Your task to perform on an android device: turn on bluetooth scan Image 0: 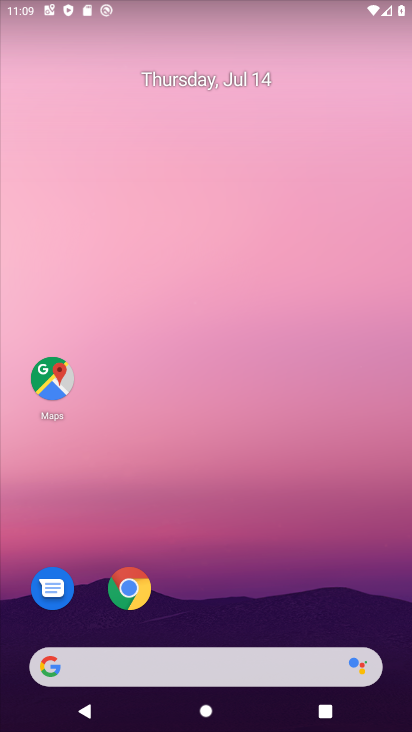
Step 0: drag from (391, 671) to (359, 57)
Your task to perform on an android device: turn on bluetooth scan Image 1: 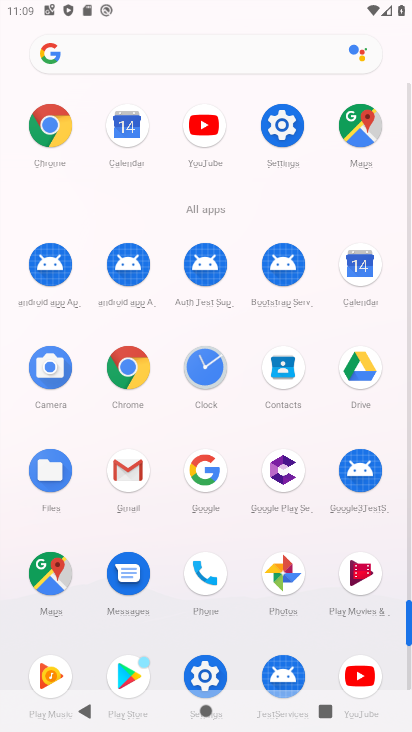
Step 1: click (206, 674)
Your task to perform on an android device: turn on bluetooth scan Image 2: 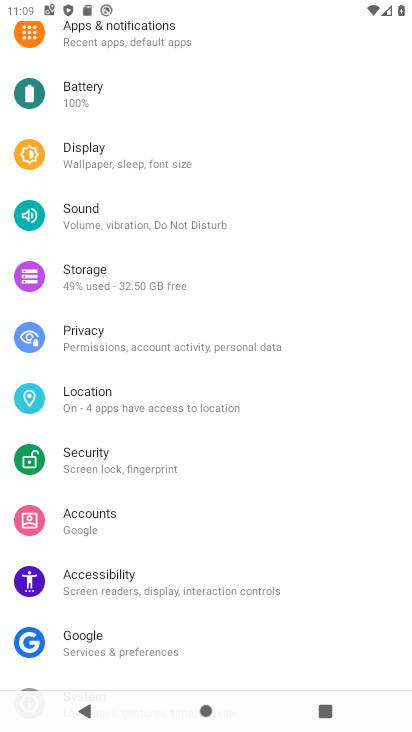
Step 2: click (72, 390)
Your task to perform on an android device: turn on bluetooth scan Image 3: 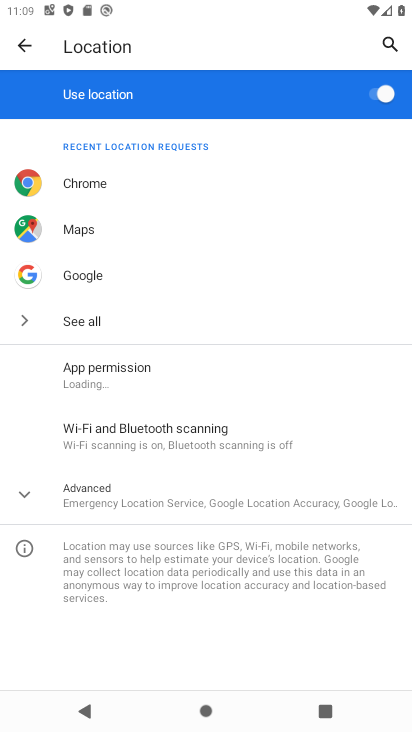
Step 3: click (128, 426)
Your task to perform on an android device: turn on bluetooth scan Image 4: 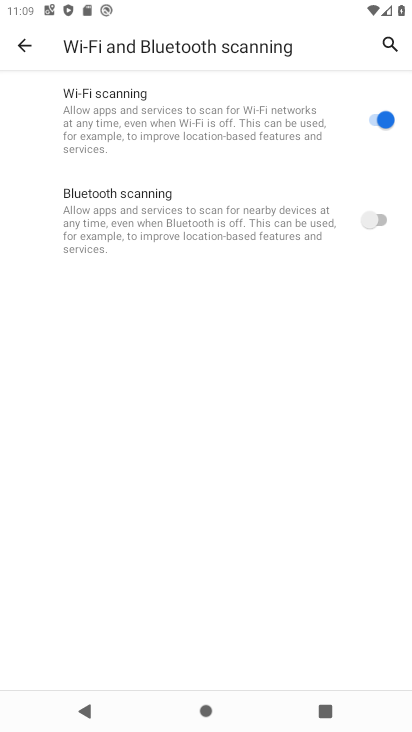
Step 4: click (381, 218)
Your task to perform on an android device: turn on bluetooth scan Image 5: 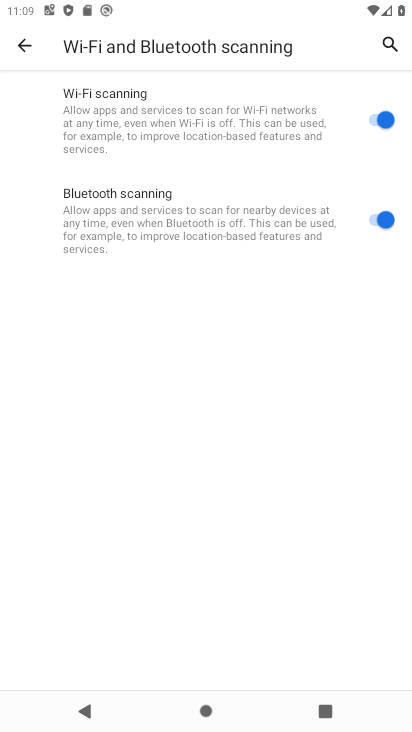
Step 5: task complete